Your task to perform on an android device: Show the shopping cart on costco.com. Search for logitech g502 on costco.com, select the first entry, add it to the cart, then select checkout. Image 0: 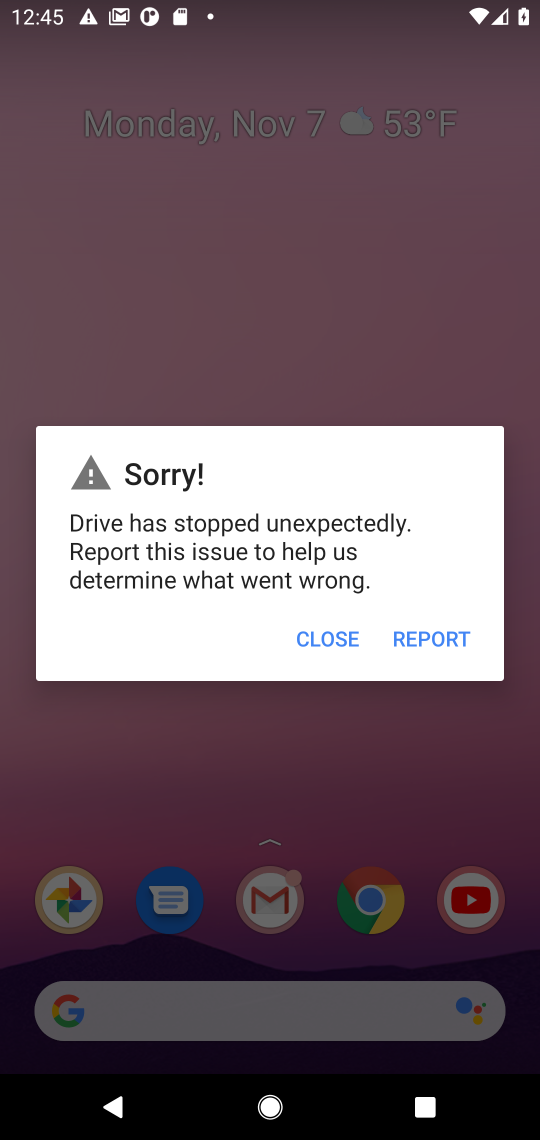
Step 0: press home button
Your task to perform on an android device: Show the shopping cart on costco.com. Search for logitech g502 on costco.com, select the first entry, add it to the cart, then select checkout. Image 1: 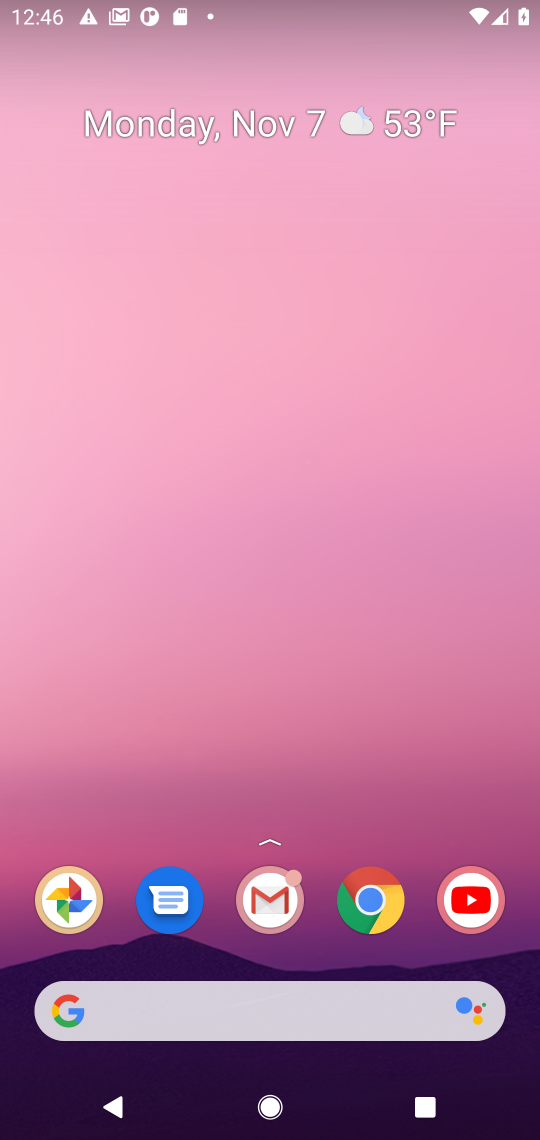
Step 1: click (277, 1017)
Your task to perform on an android device: Show the shopping cart on costco.com. Search for logitech g502 on costco.com, select the first entry, add it to the cart, then select checkout. Image 2: 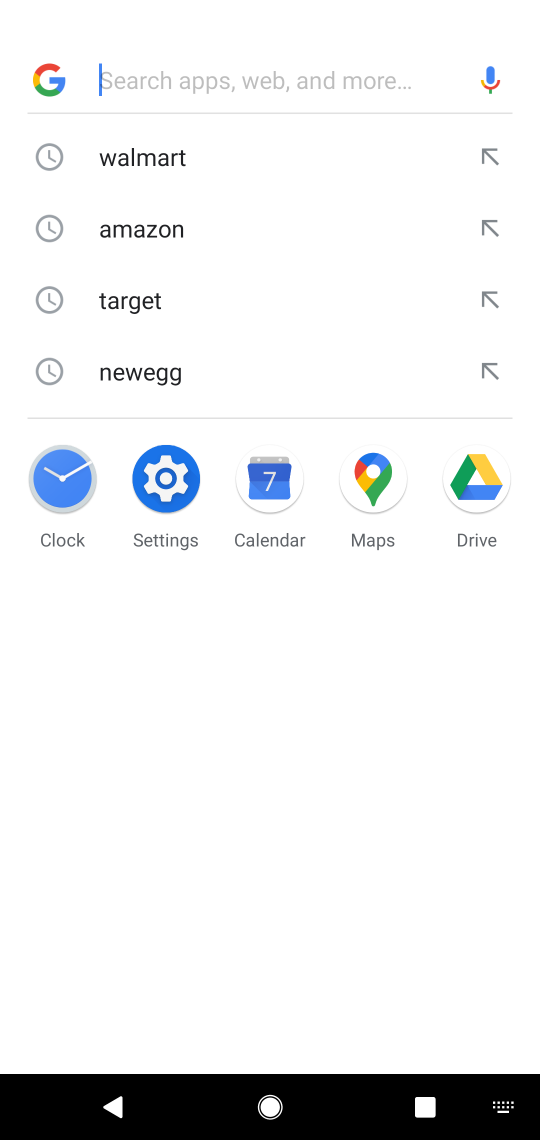
Step 2: type "costco"
Your task to perform on an android device: Show the shopping cart on costco.com. Search for logitech g502 on costco.com, select the first entry, add it to the cart, then select checkout. Image 3: 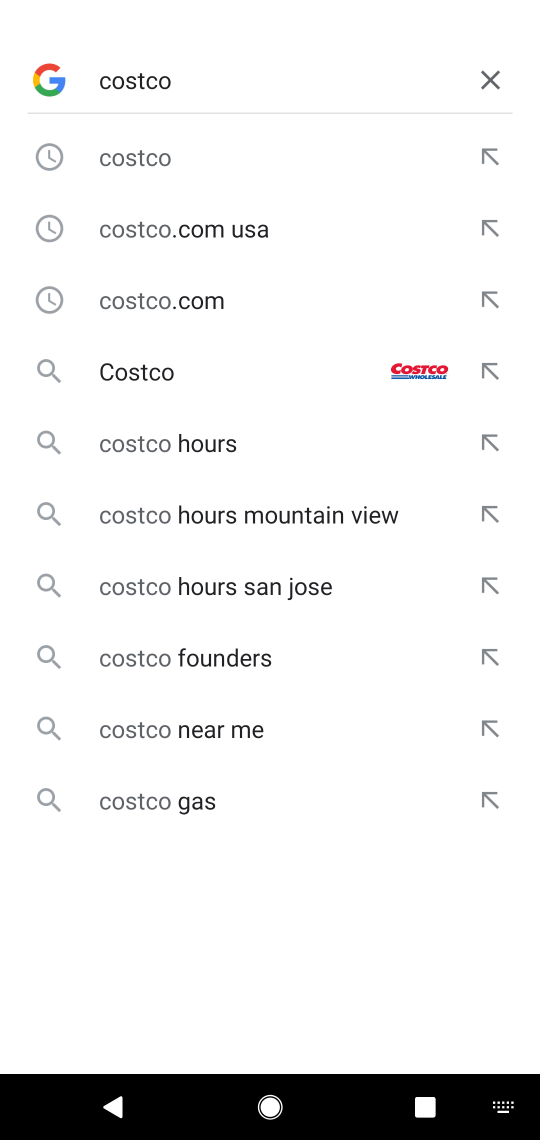
Step 3: click (139, 167)
Your task to perform on an android device: Show the shopping cart on costco.com. Search for logitech g502 on costco.com, select the first entry, add it to the cart, then select checkout. Image 4: 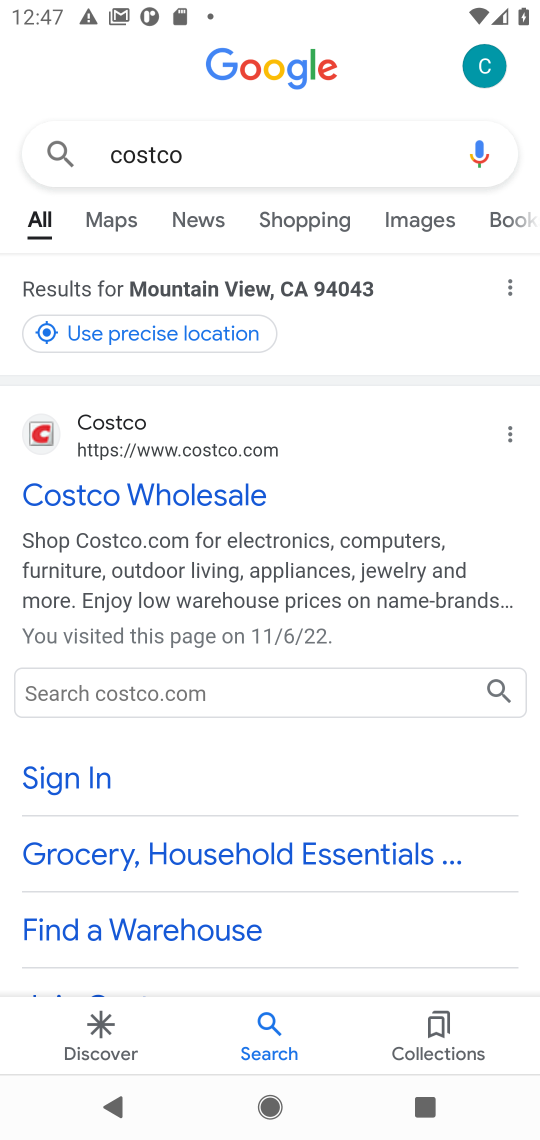
Step 4: click (190, 500)
Your task to perform on an android device: Show the shopping cart on costco.com. Search for logitech g502 on costco.com, select the first entry, add it to the cart, then select checkout. Image 5: 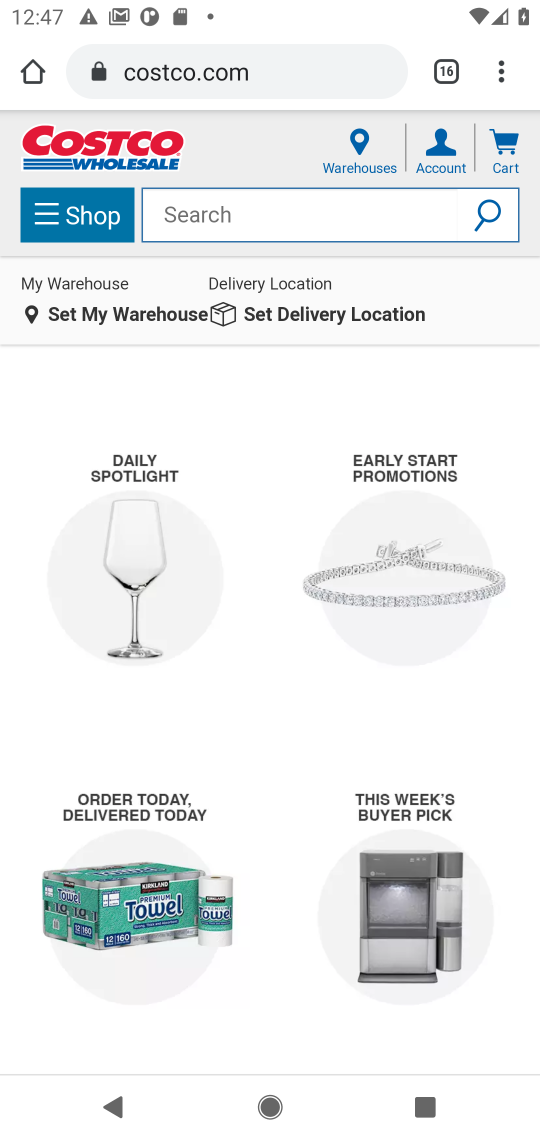
Step 5: task complete